Your task to perform on an android device: toggle notifications settings in the gmail app Image 0: 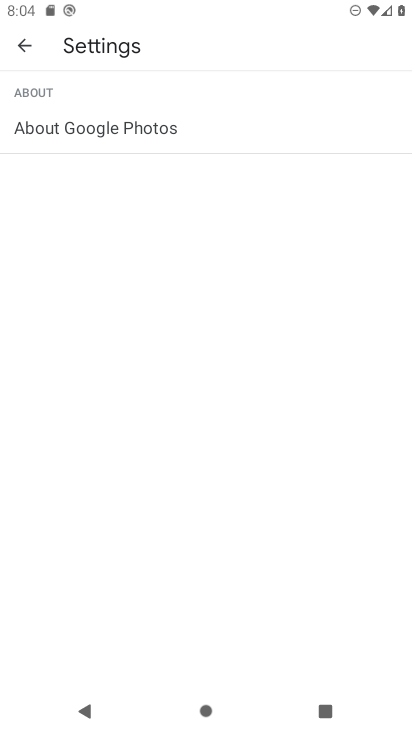
Step 0: press home button
Your task to perform on an android device: toggle notifications settings in the gmail app Image 1: 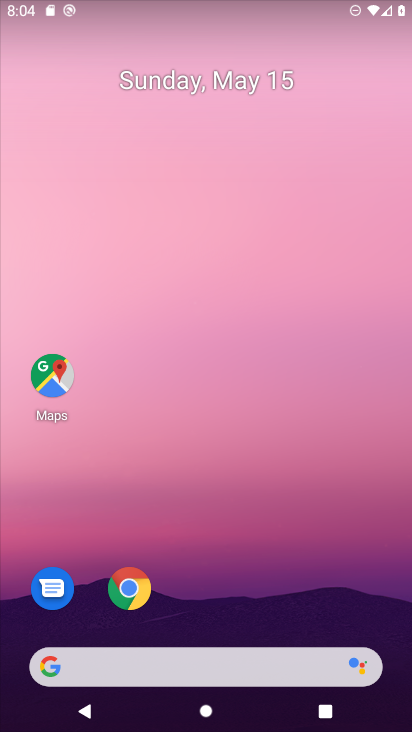
Step 1: drag from (204, 599) to (218, 122)
Your task to perform on an android device: toggle notifications settings in the gmail app Image 2: 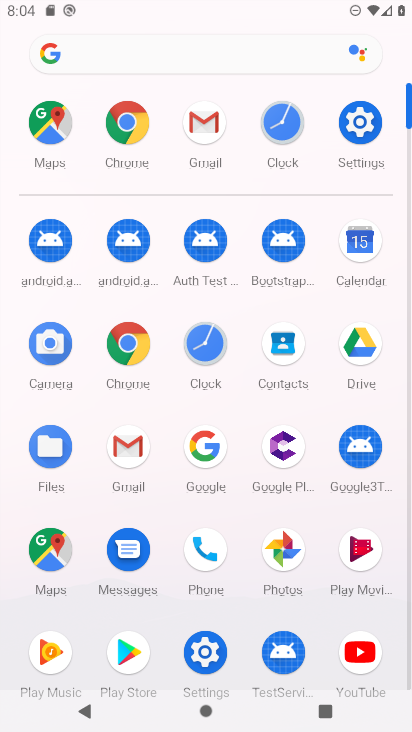
Step 2: click (118, 439)
Your task to perform on an android device: toggle notifications settings in the gmail app Image 3: 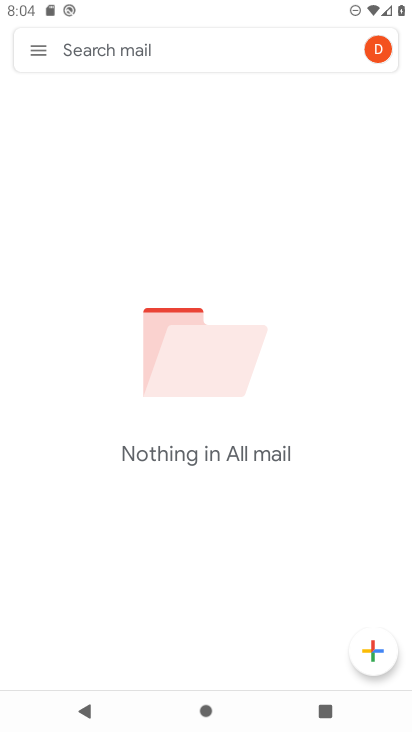
Step 3: click (24, 42)
Your task to perform on an android device: toggle notifications settings in the gmail app Image 4: 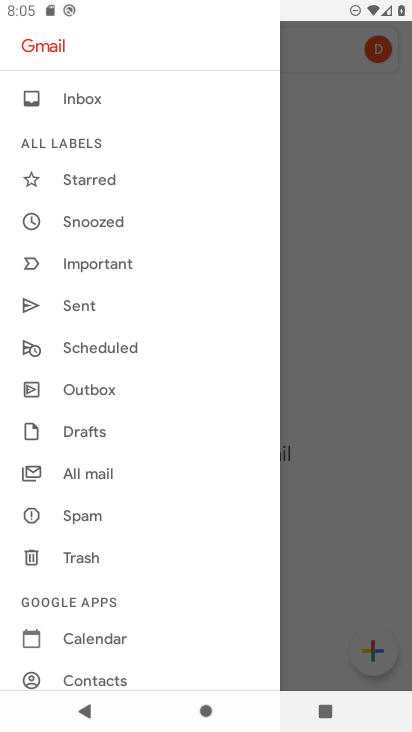
Step 4: drag from (134, 626) to (118, 140)
Your task to perform on an android device: toggle notifications settings in the gmail app Image 5: 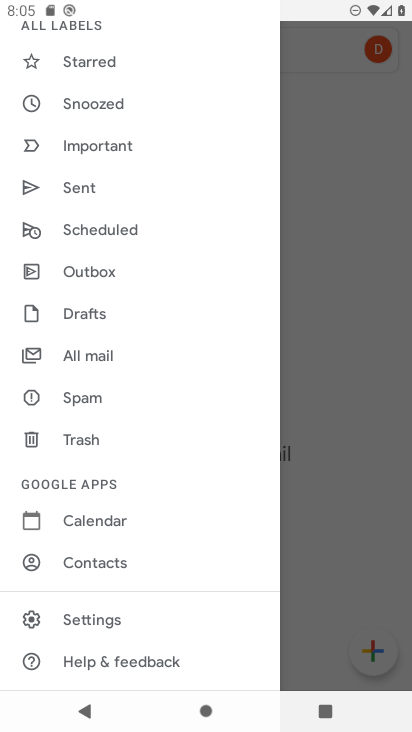
Step 5: click (116, 617)
Your task to perform on an android device: toggle notifications settings in the gmail app Image 6: 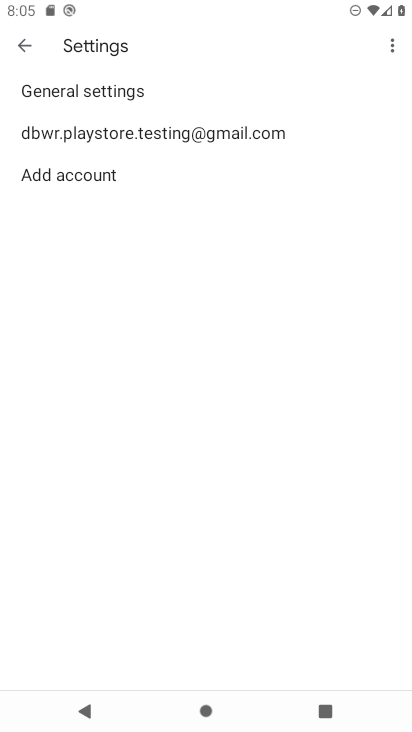
Step 6: click (102, 90)
Your task to perform on an android device: toggle notifications settings in the gmail app Image 7: 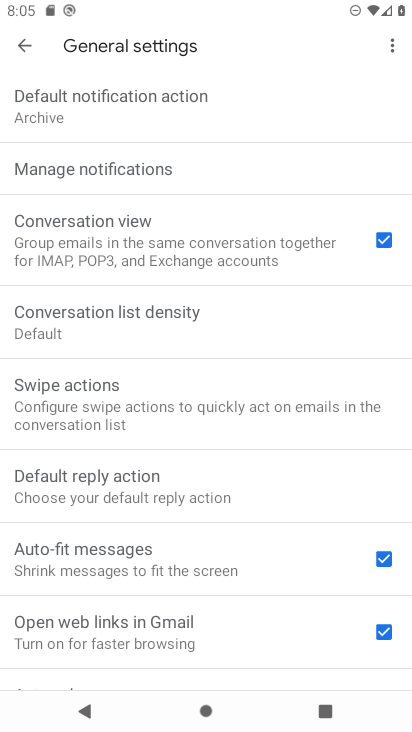
Step 7: click (186, 169)
Your task to perform on an android device: toggle notifications settings in the gmail app Image 8: 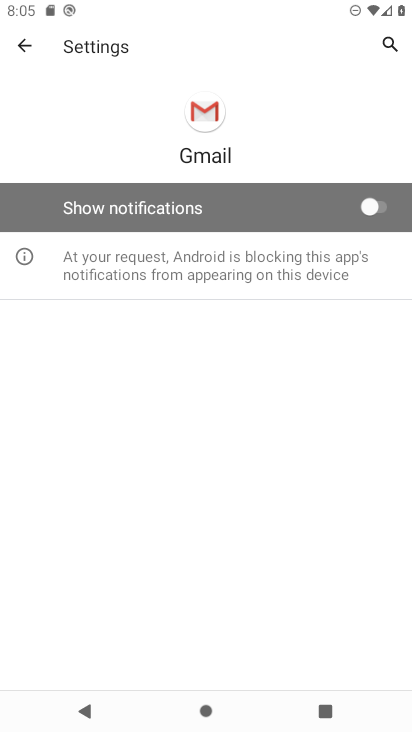
Step 8: click (366, 197)
Your task to perform on an android device: toggle notifications settings in the gmail app Image 9: 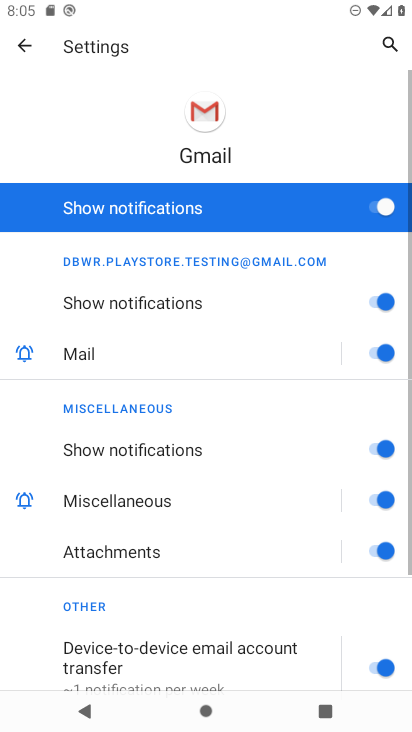
Step 9: task complete